Your task to perform on an android device: change notifications settings Image 0: 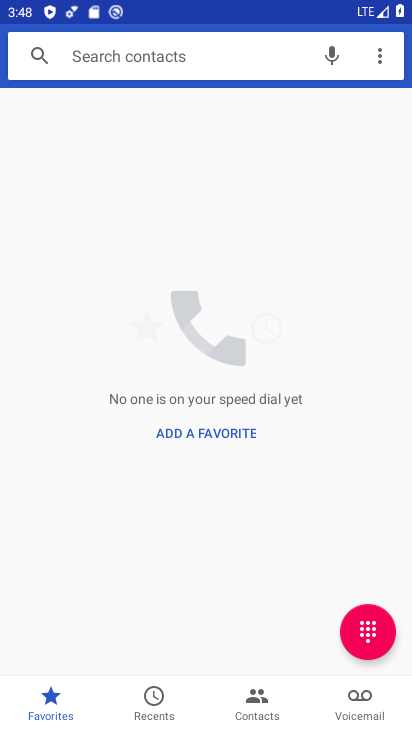
Step 0: press home button
Your task to perform on an android device: change notifications settings Image 1: 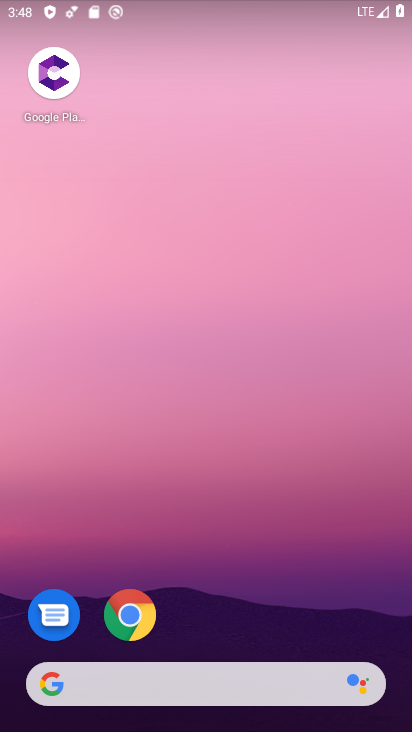
Step 1: drag from (261, 562) to (214, 184)
Your task to perform on an android device: change notifications settings Image 2: 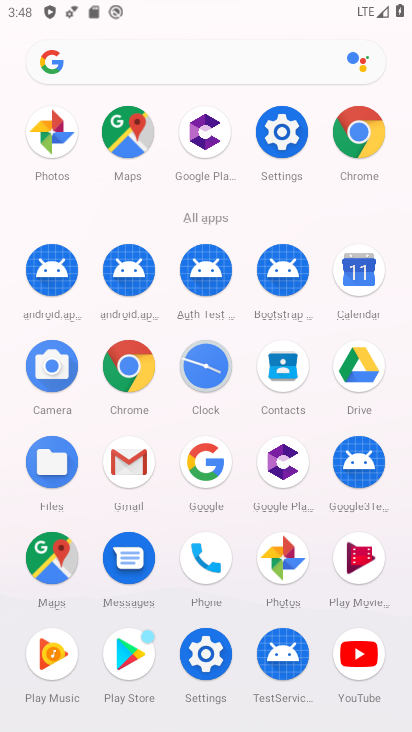
Step 2: click (204, 666)
Your task to perform on an android device: change notifications settings Image 3: 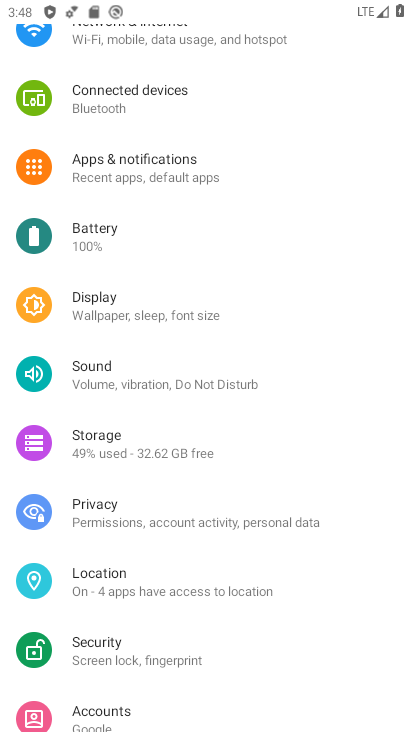
Step 3: click (103, 172)
Your task to perform on an android device: change notifications settings Image 4: 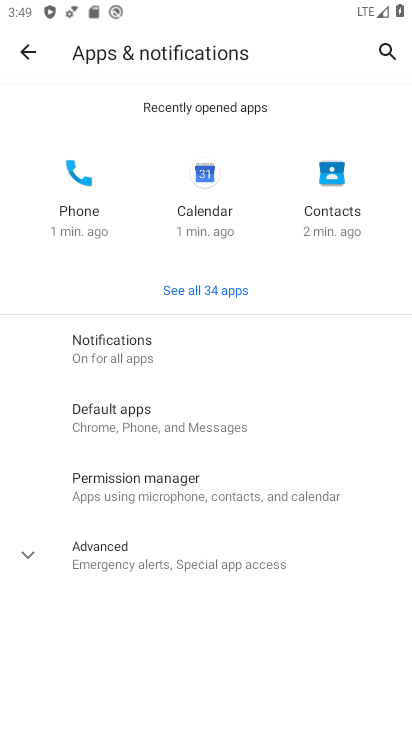
Step 4: click (116, 348)
Your task to perform on an android device: change notifications settings Image 5: 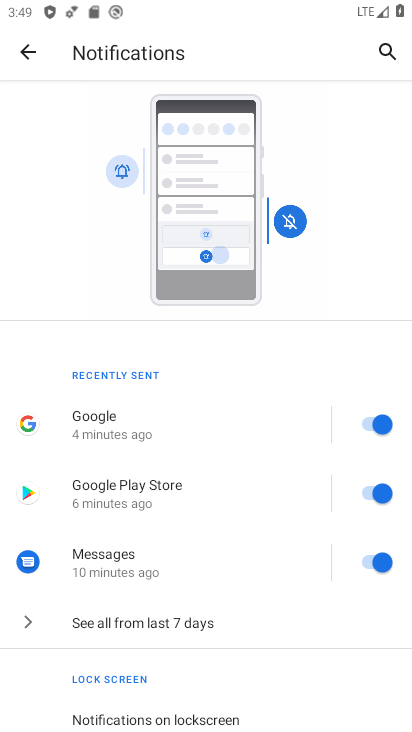
Step 5: drag from (212, 582) to (183, 210)
Your task to perform on an android device: change notifications settings Image 6: 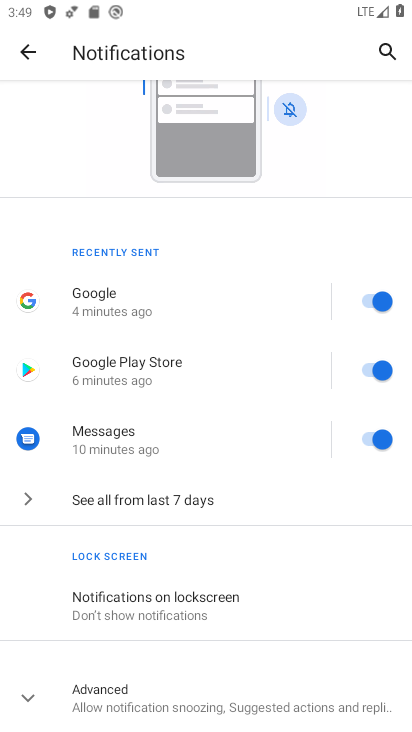
Step 6: click (205, 689)
Your task to perform on an android device: change notifications settings Image 7: 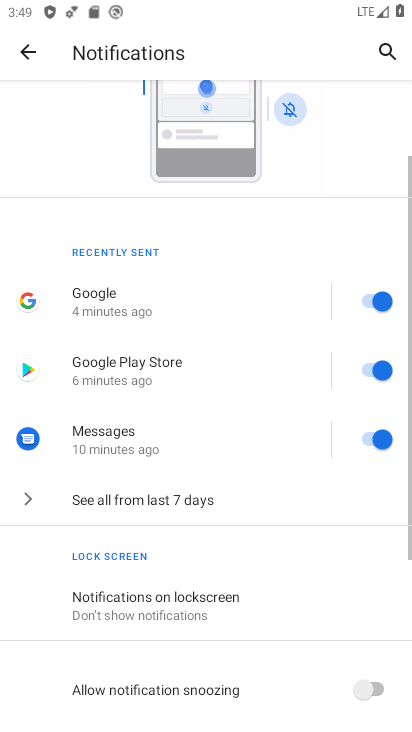
Step 7: click (246, 695)
Your task to perform on an android device: change notifications settings Image 8: 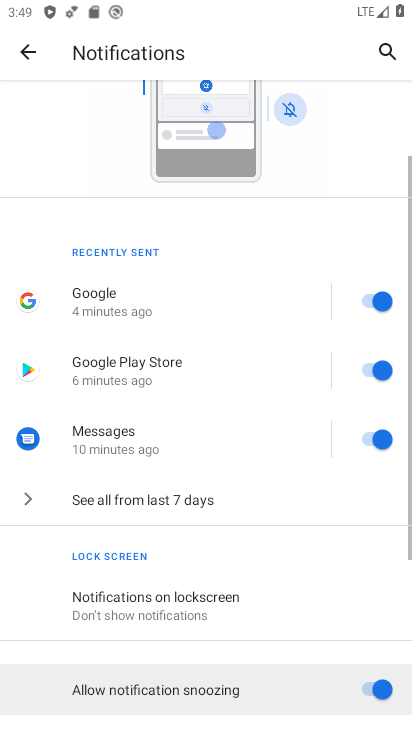
Step 8: drag from (246, 695) to (230, 167)
Your task to perform on an android device: change notifications settings Image 9: 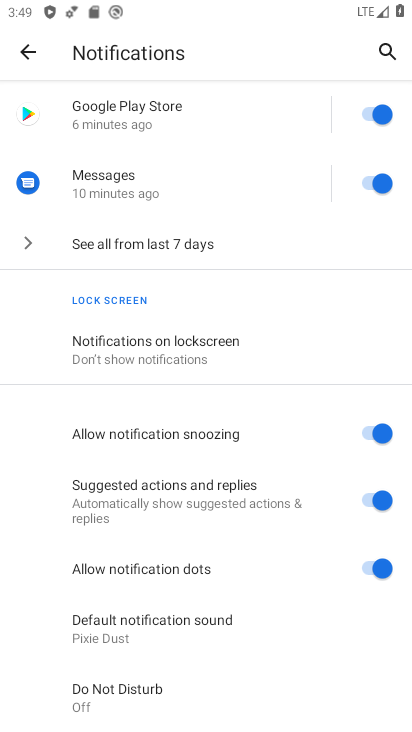
Step 9: click (350, 573)
Your task to perform on an android device: change notifications settings Image 10: 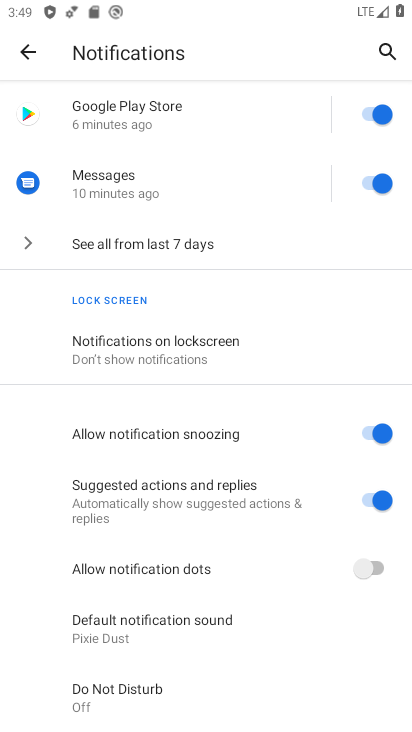
Step 10: task complete